Your task to perform on an android device: Search for a runner rug on Crate & Barrel. Image 0: 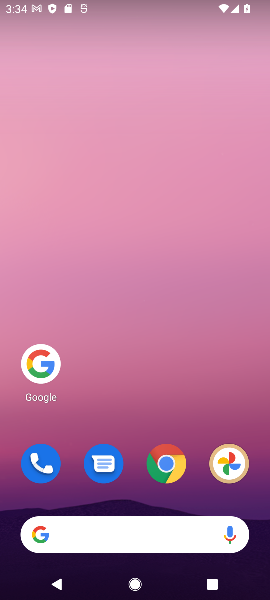
Step 0: click (28, 359)
Your task to perform on an android device: Search for a runner rug on Crate & Barrel. Image 1: 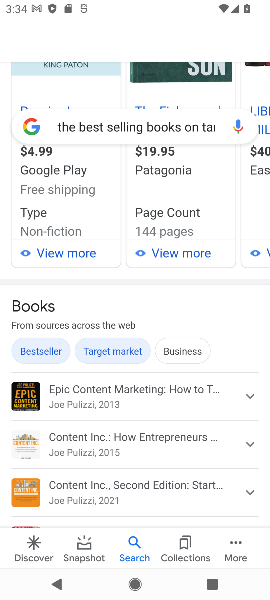
Step 1: click (180, 121)
Your task to perform on an android device: Search for a runner rug on Crate & Barrel. Image 2: 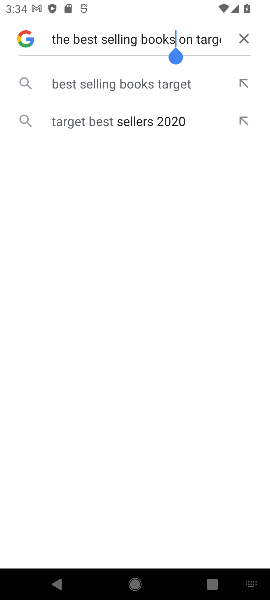
Step 2: click (242, 37)
Your task to perform on an android device: Search for a runner rug on Crate & Barrel. Image 3: 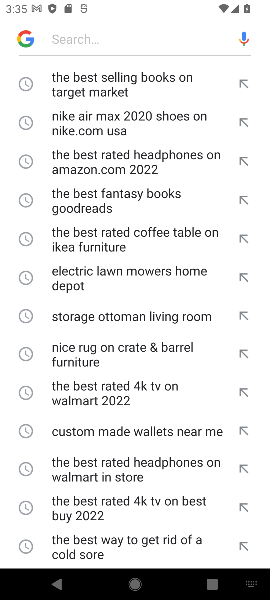
Step 3: click (162, 36)
Your task to perform on an android device: Search for a runner rug on Crate & Barrel. Image 4: 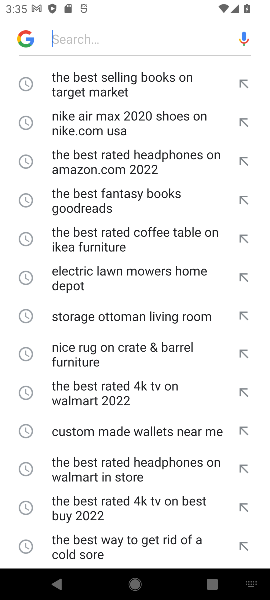
Step 4: type " a runner rug on Crate & Barrel "
Your task to perform on an android device: Search for a runner rug on Crate & Barrel. Image 5: 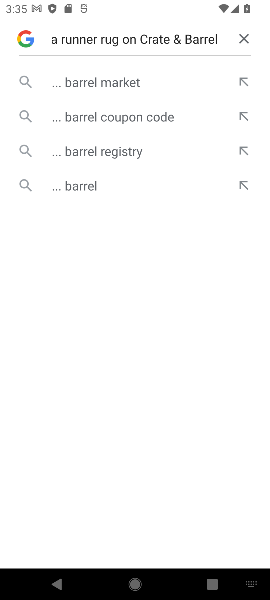
Step 5: click (79, 85)
Your task to perform on an android device: Search for a runner rug on Crate & Barrel. Image 6: 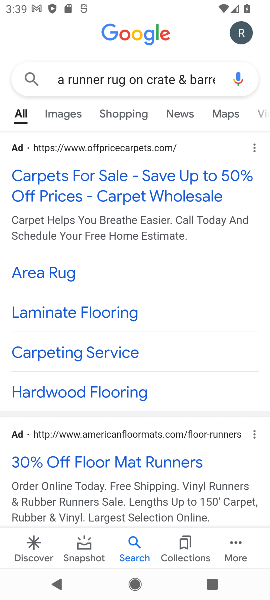
Step 6: task complete